Your task to perform on an android device: When is my next meeting? Image 0: 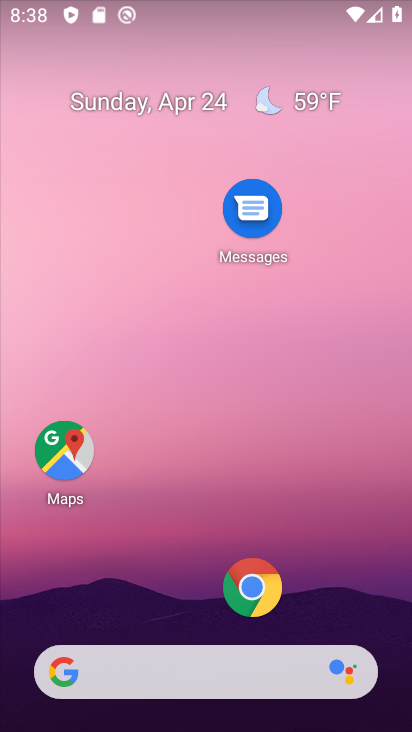
Step 0: drag from (159, 621) to (237, 0)
Your task to perform on an android device: When is my next meeting? Image 1: 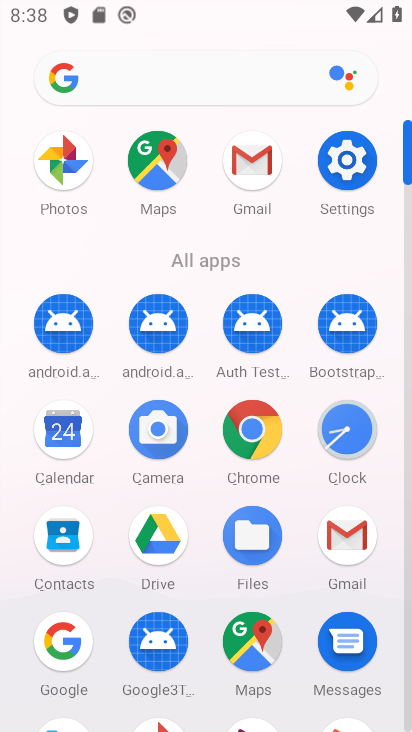
Step 1: click (65, 425)
Your task to perform on an android device: When is my next meeting? Image 2: 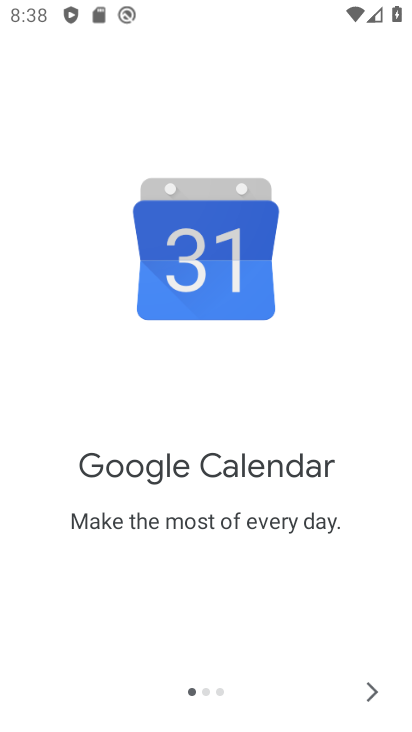
Step 2: click (370, 692)
Your task to perform on an android device: When is my next meeting? Image 3: 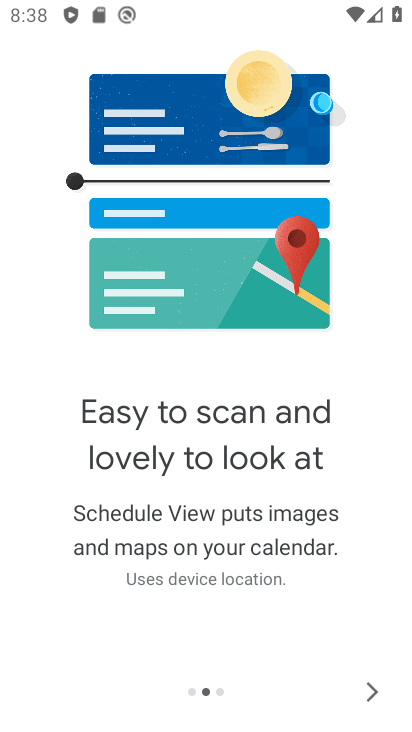
Step 3: click (370, 692)
Your task to perform on an android device: When is my next meeting? Image 4: 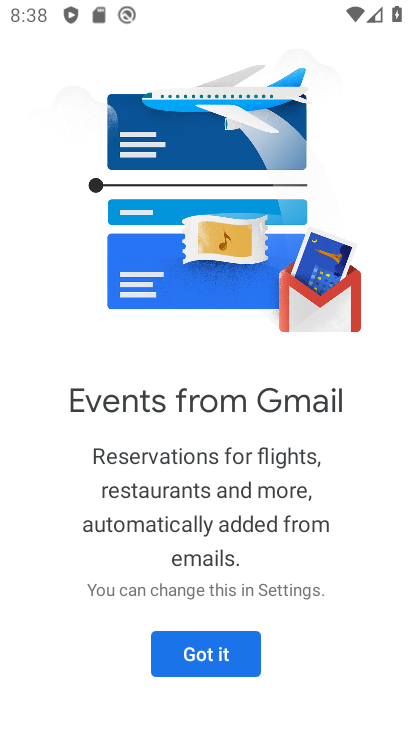
Step 4: click (197, 652)
Your task to perform on an android device: When is my next meeting? Image 5: 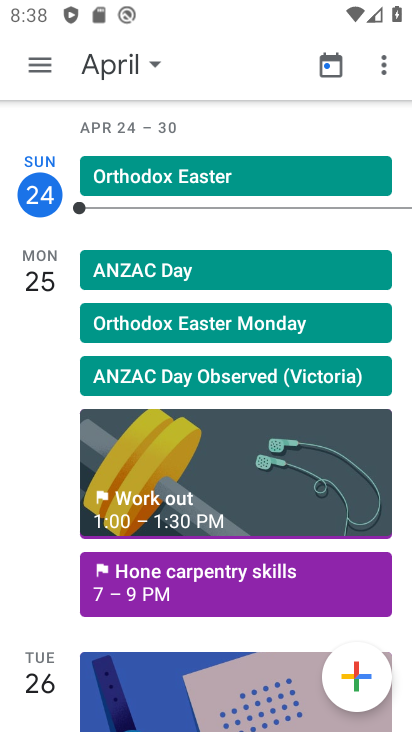
Step 5: click (36, 61)
Your task to perform on an android device: When is my next meeting? Image 6: 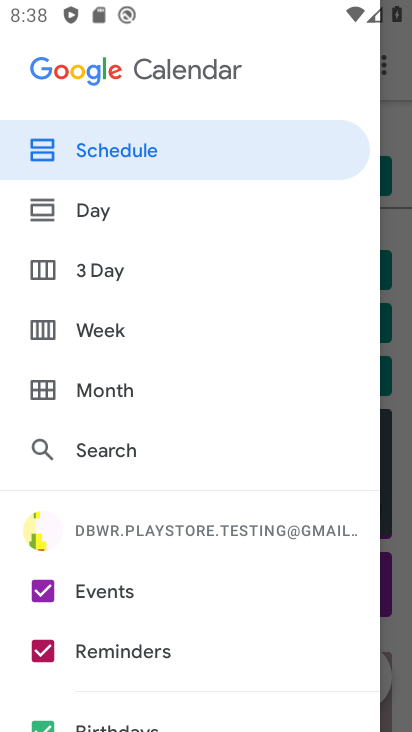
Step 6: click (144, 156)
Your task to perform on an android device: When is my next meeting? Image 7: 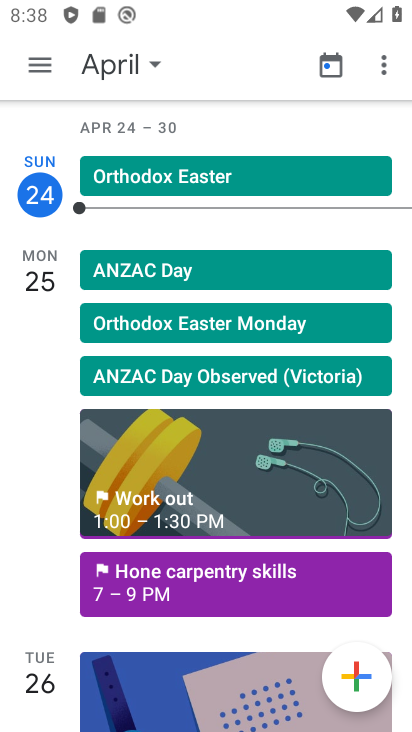
Step 7: drag from (135, 583) to (217, 39)
Your task to perform on an android device: When is my next meeting? Image 8: 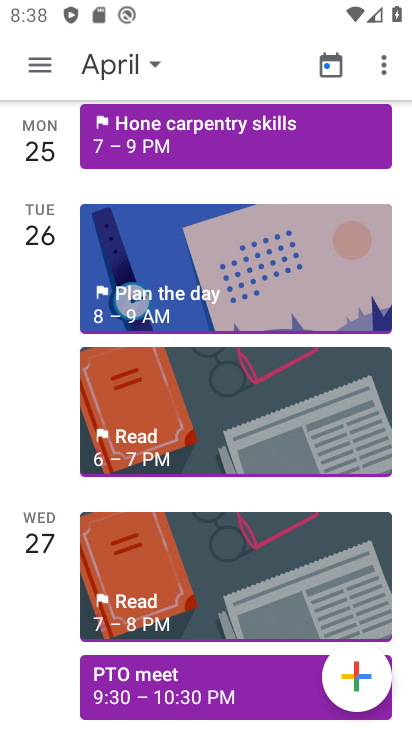
Step 8: drag from (162, 551) to (253, 171)
Your task to perform on an android device: When is my next meeting? Image 9: 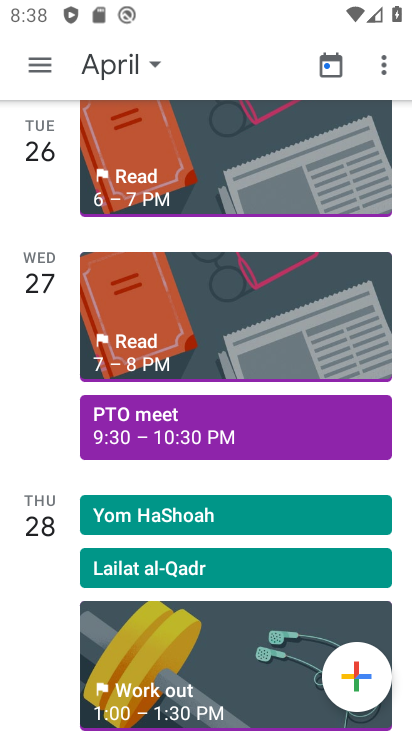
Step 9: click (163, 440)
Your task to perform on an android device: When is my next meeting? Image 10: 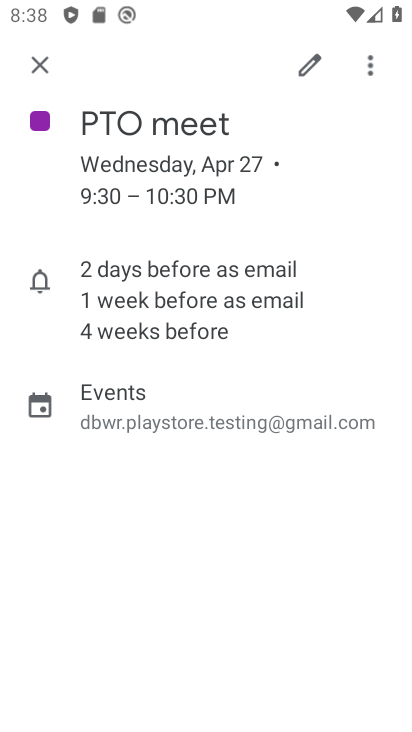
Step 10: task complete